Your task to perform on an android device: Play the last video I watched on Youtube Image 0: 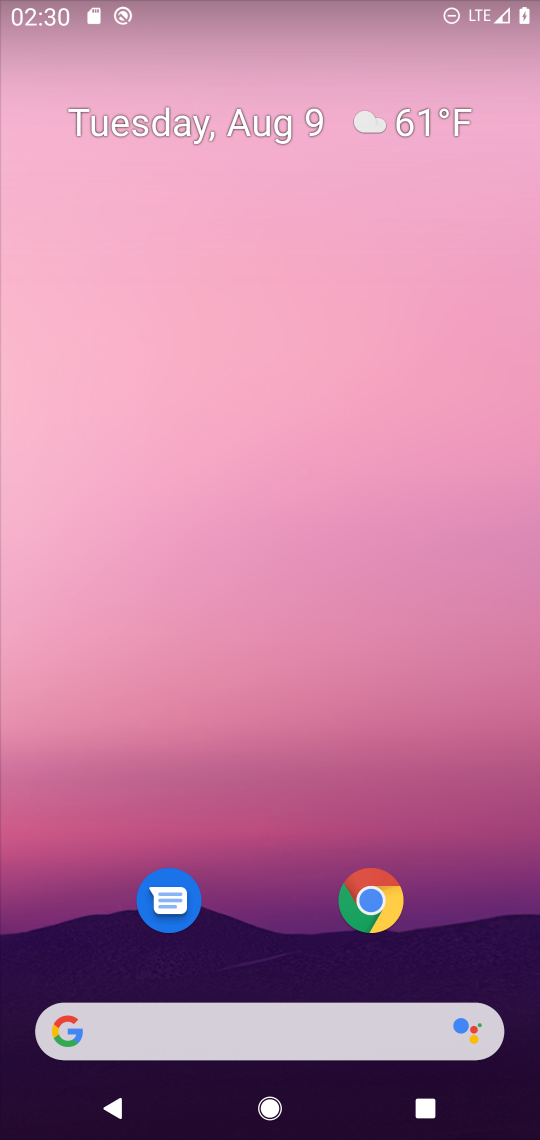
Step 0: drag from (281, 888) to (323, 215)
Your task to perform on an android device: Play the last video I watched on Youtube Image 1: 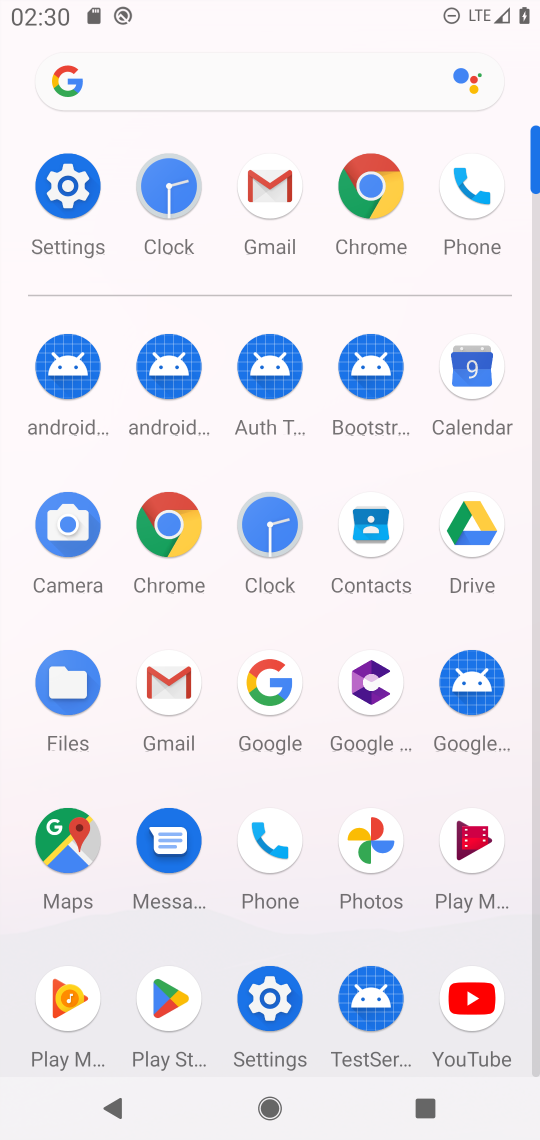
Step 1: click (485, 994)
Your task to perform on an android device: Play the last video I watched on Youtube Image 2: 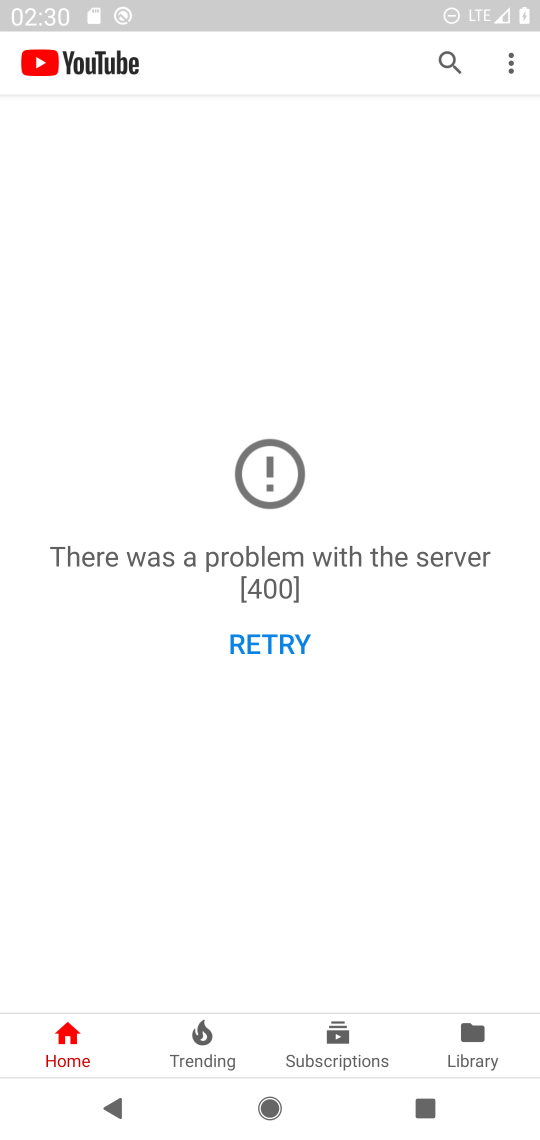
Step 2: click (461, 1050)
Your task to perform on an android device: Play the last video I watched on Youtube Image 3: 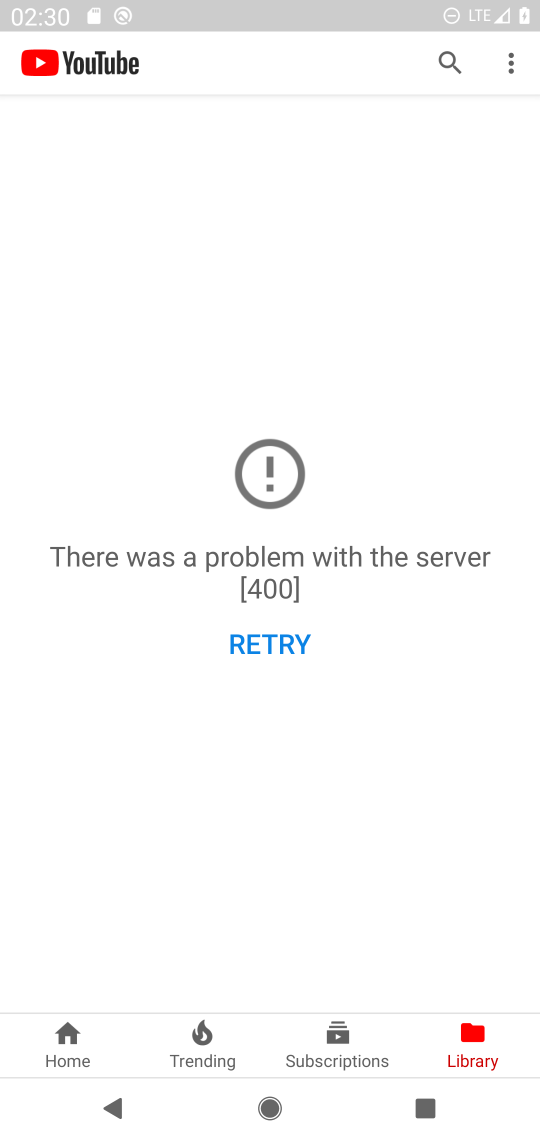
Step 3: task complete